Your task to perform on an android device: Open sound settings Image 0: 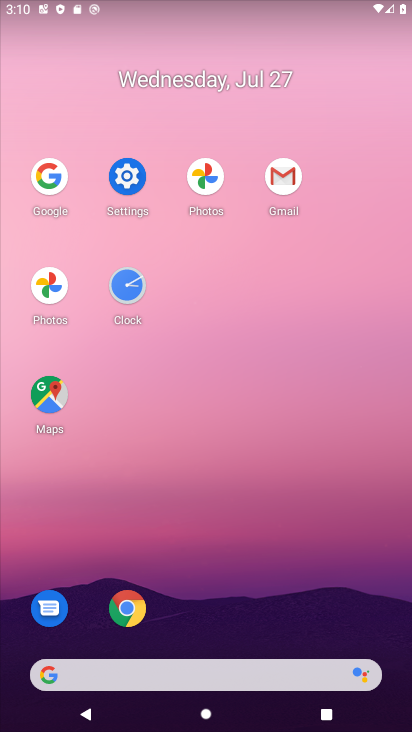
Step 0: click (118, 179)
Your task to perform on an android device: Open sound settings Image 1: 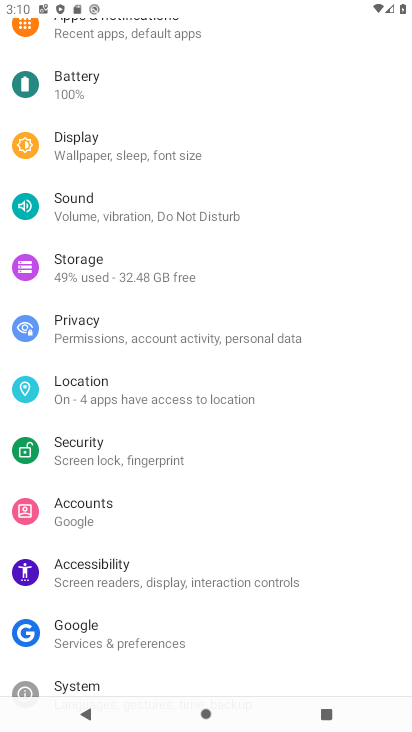
Step 1: click (143, 209)
Your task to perform on an android device: Open sound settings Image 2: 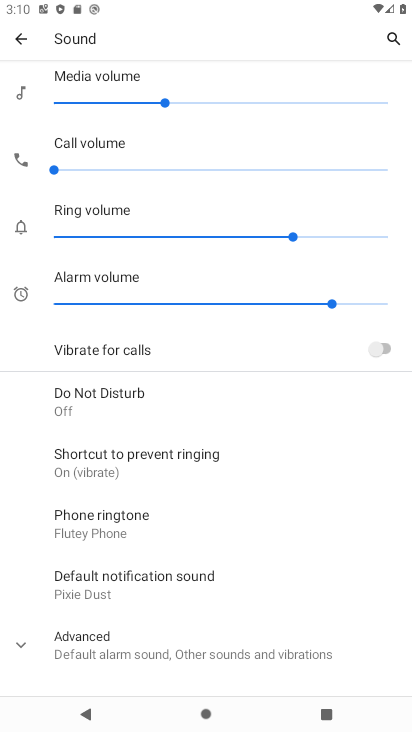
Step 2: task complete